Your task to perform on an android device: set an alarm Image 0: 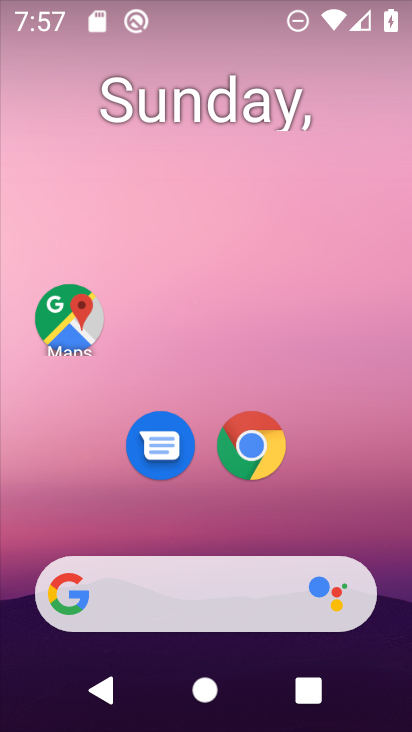
Step 0: drag from (269, 399) to (271, 298)
Your task to perform on an android device: set an alarm Image 1: 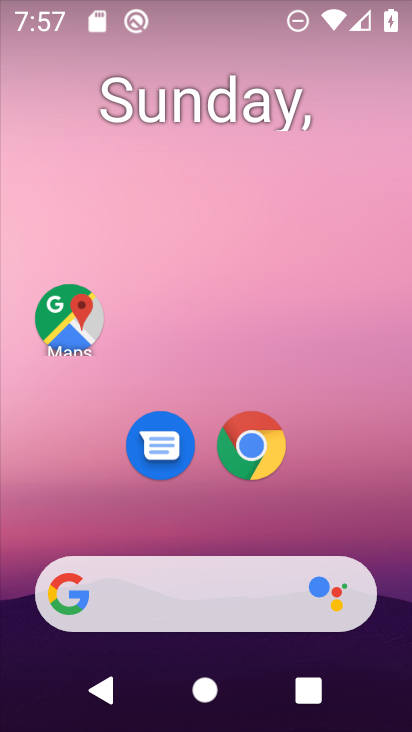
Step 1: drag from (187, 590) to (241, 171)
Your task to perform on an android device: set an alarm Image 2: 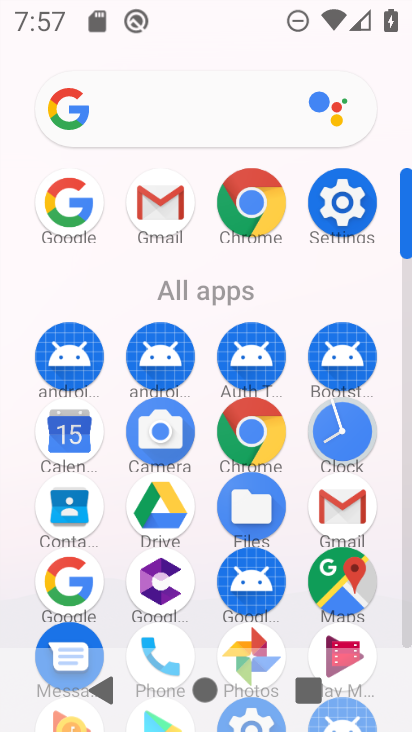
Step 2: drag from (267, 428) to (275, 312)
Your task to perform on an android device: set an alarm Image 3: 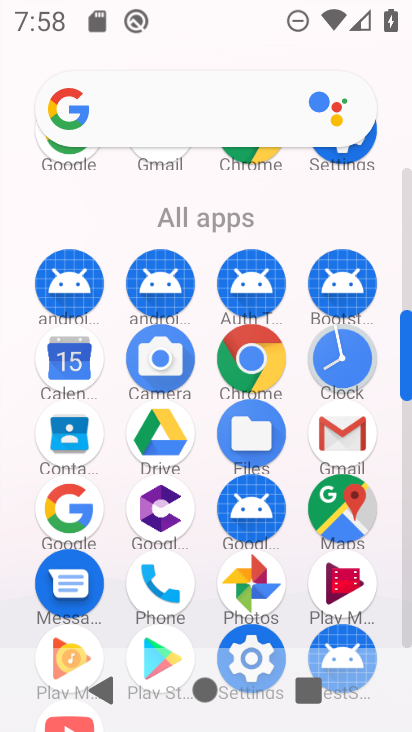
Step 3: click (345, 383)
Your task to perform on an android device: set an alarm Image 4: 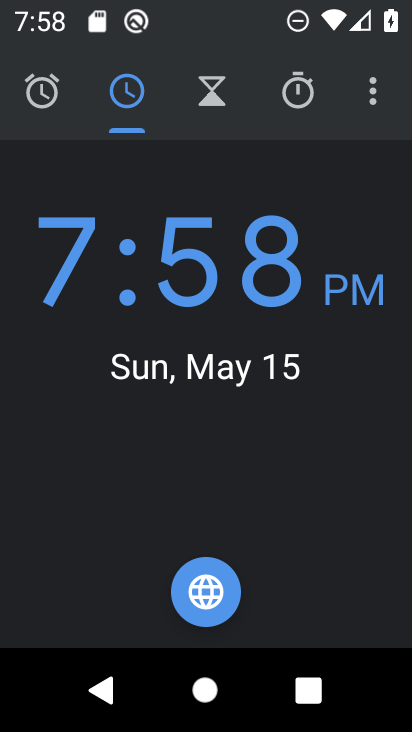
Step 4: click (62, 103)
Your task to perform on an android device: set an alarm Image 5: 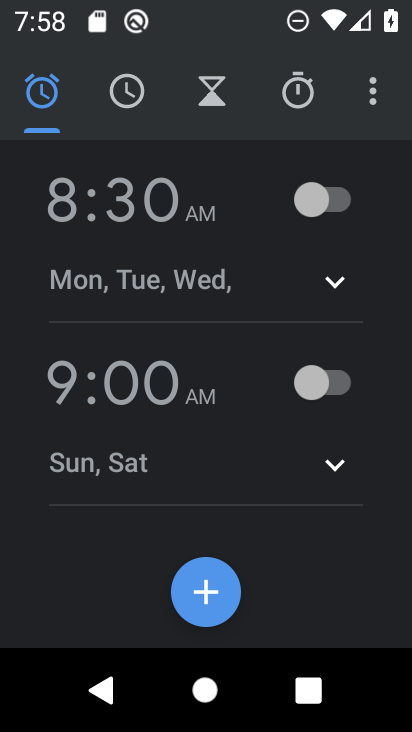
Step 5: click (210, 600)
Your task to perform on an android device: set an alarm Image 6: 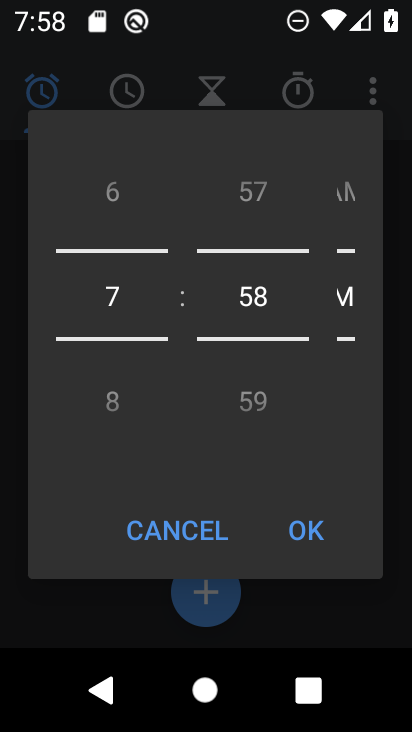
Step 6: click (301, 530)
Your task to perform on an android device: set an alarm Image 7: 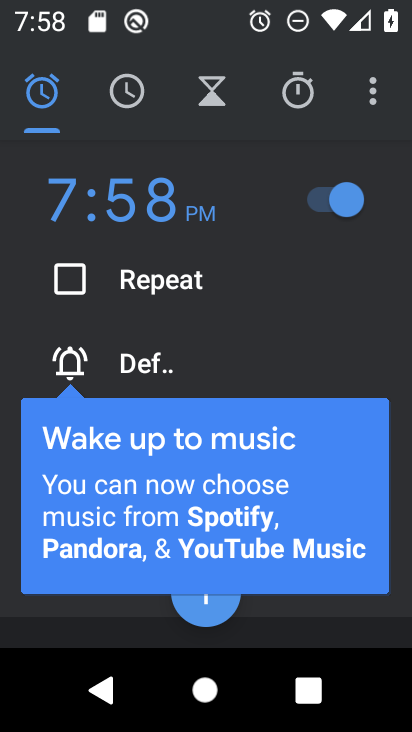
Step 7: task complete